Your task to perform on an android device: What is the recent news? Image 0: 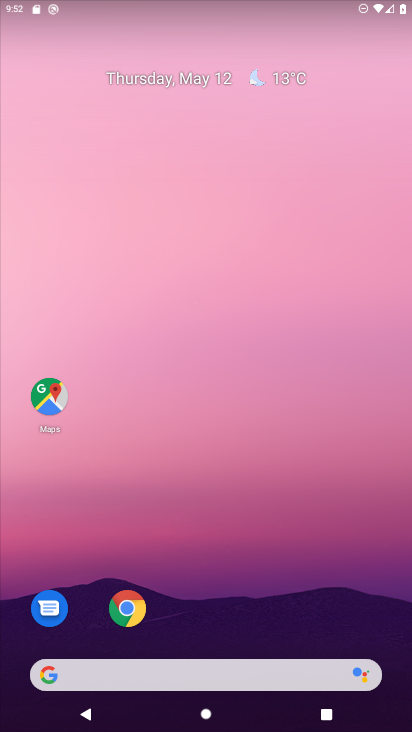
Step 0: drag from (207, 613) to (183, 78)
Your task to perform on an android device: What is the recent news? Image 1: 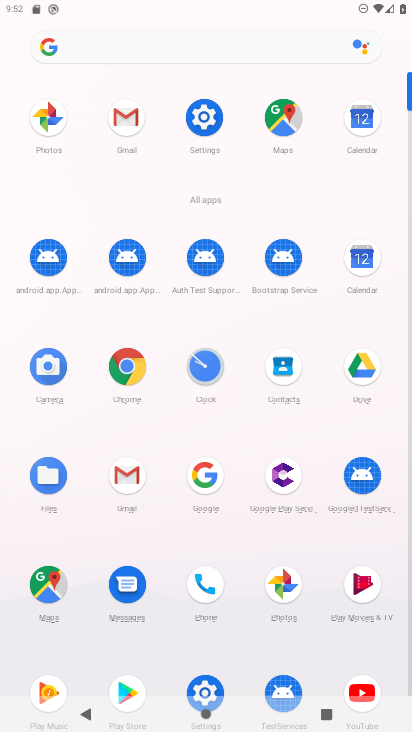
Step 1: click (205, 470)
Your task to perform on an android device: What is the recent news? Image 2: 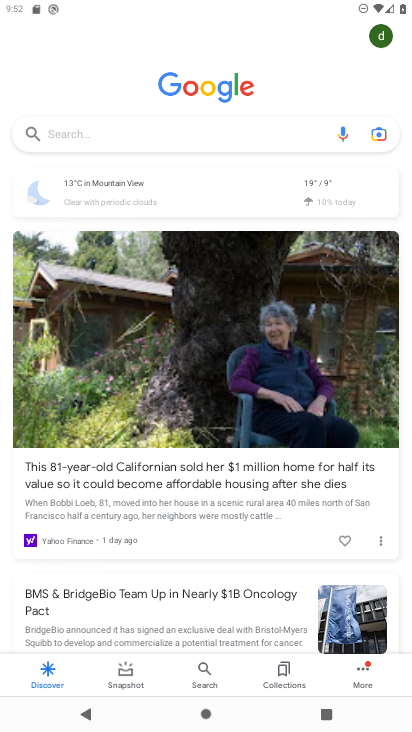
Step 2: click (152, 133)
Your task to perform on an android device: What is the recent news? Image 3: 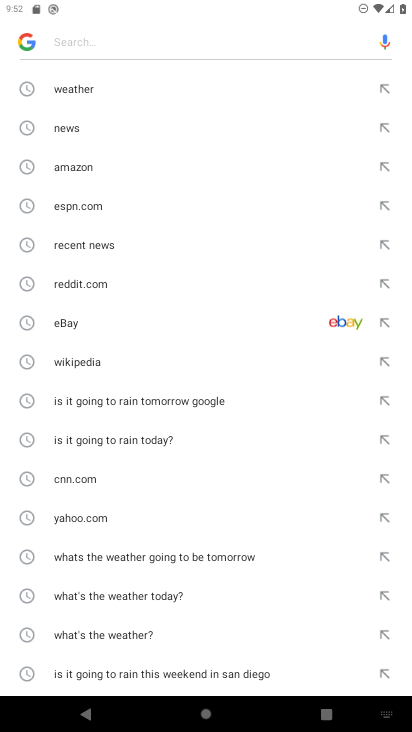
Step 3: click (98, 129)
Your task to perform on an android device: What is the recent news? Image 4: 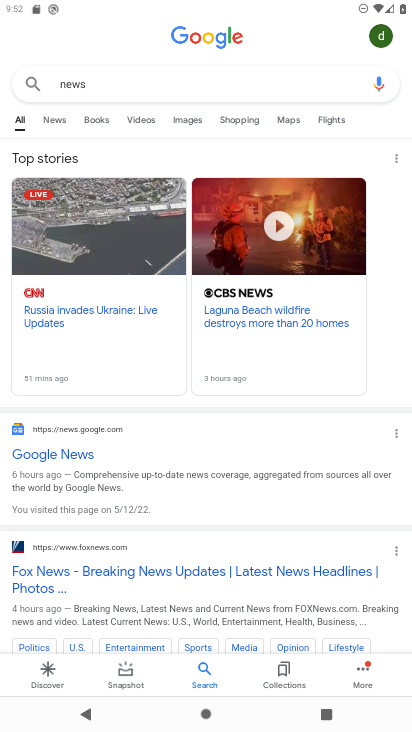
Step 4: task complete